Your task to perform on an android device: uninstall "Gboard" Image 0: 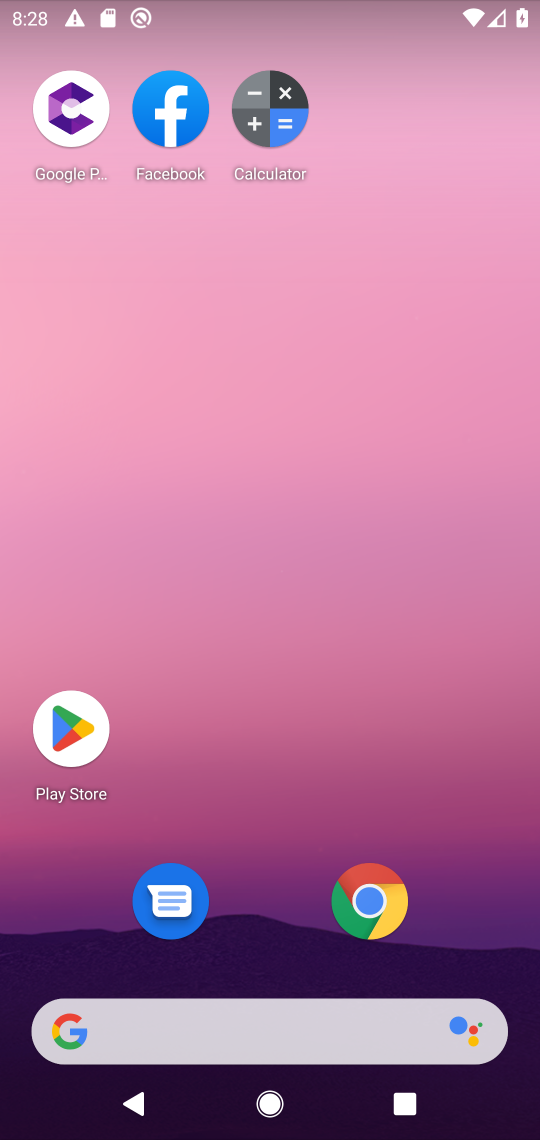
Step 0: click (86, 750)
Your task to perform on an android device: uninstall "Gboard" Image 1: 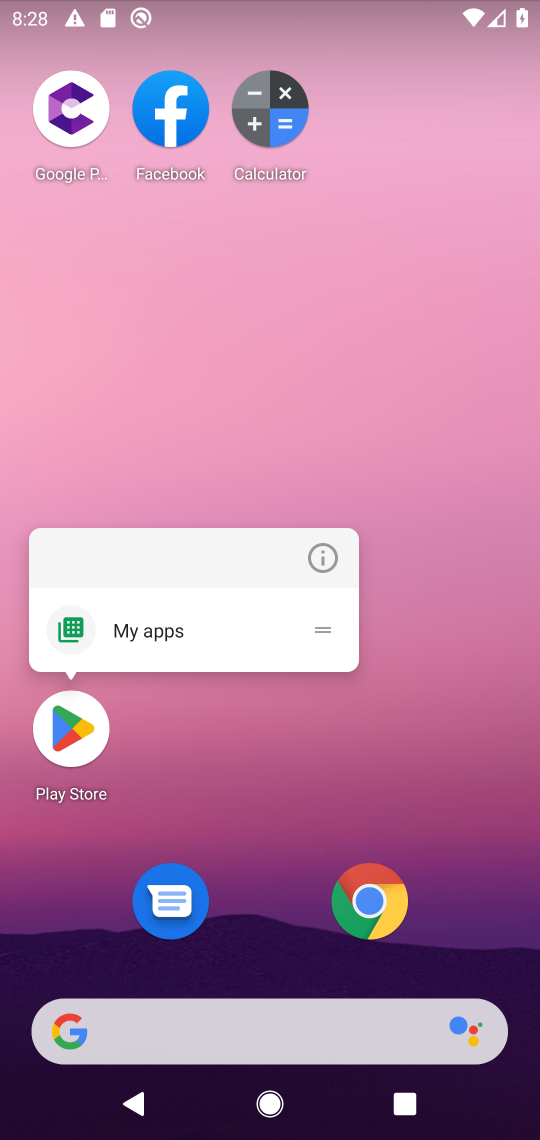
Step 1: click (70, 739)
Your task to perform on an android device: uninstall "Gboard" Image 2: 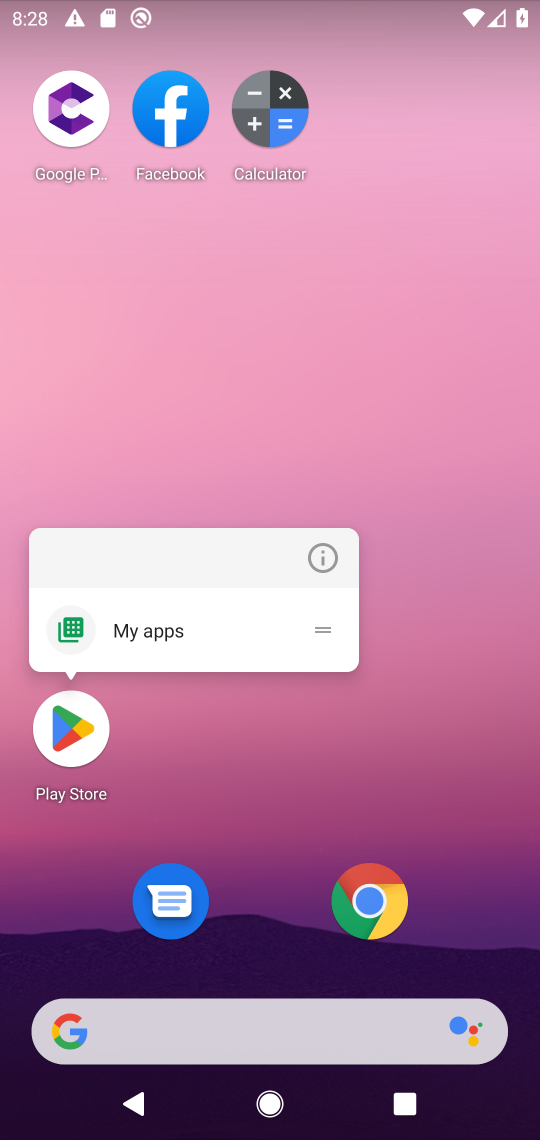
Step 2: click (70, 739)
Your task to perform on an android device: uninstall "Gboard" Image 3: 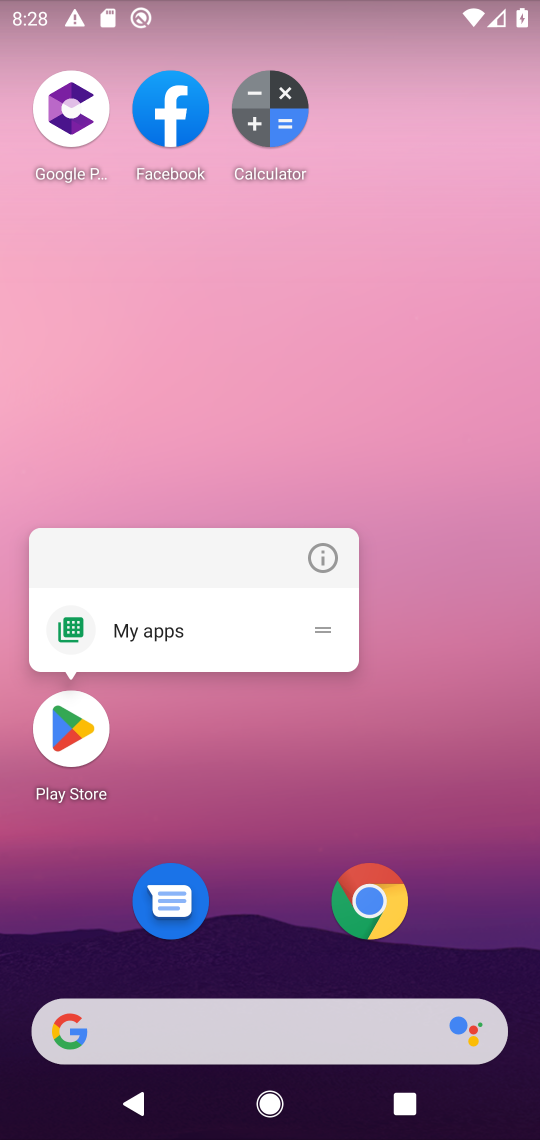
Step 3: click (70, 739)
Your task to perform on an android device: uninstall "Gboard" Image 4: 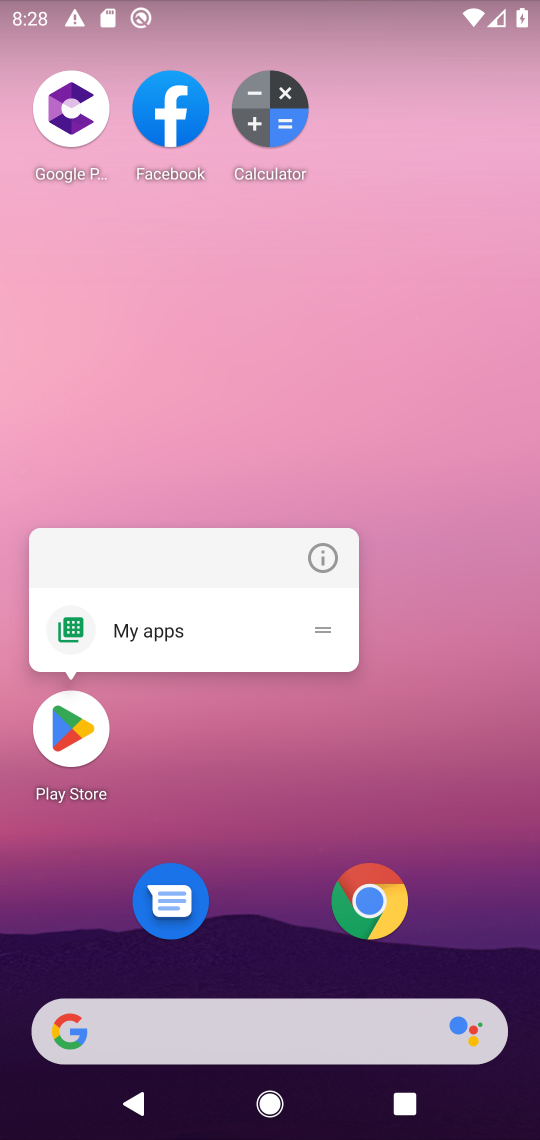
Step 4: click (61, 726)
Your task to perform on an android device: uninstall "Gboard" Image 5: 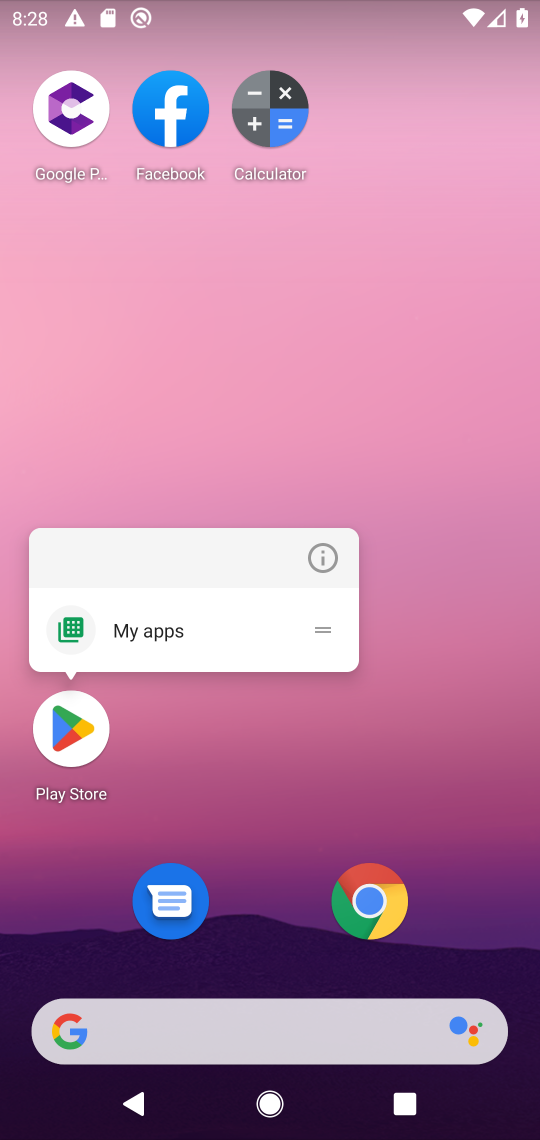
Step 5: click (61, 724)
Your task to perform on an android device: uninstall "Gboard" Image 6: 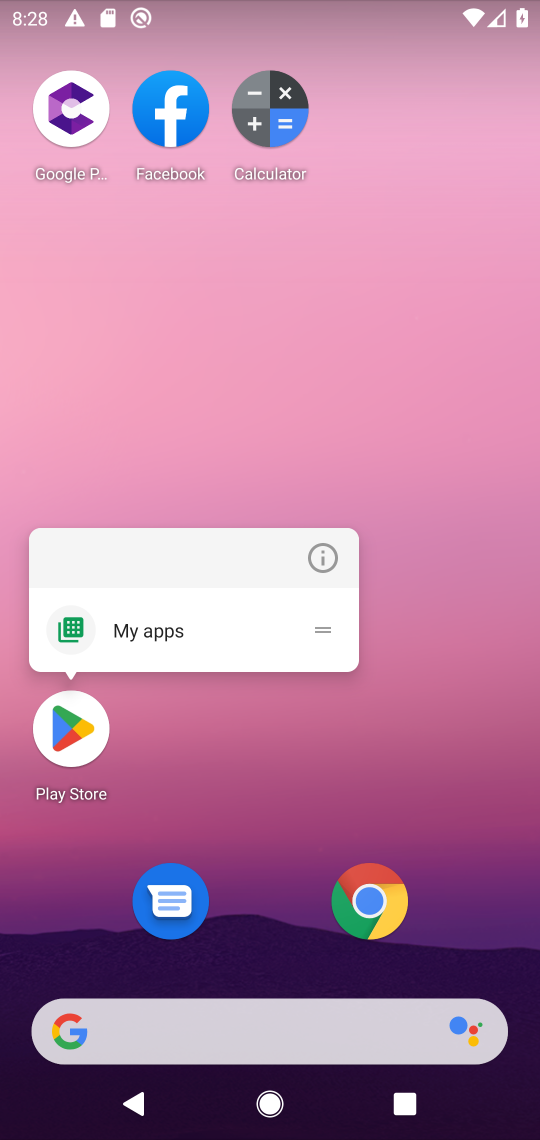
Step 6: click (61, 724)
Your task to perform on an android device: uninstall "Gboard" Image 7: 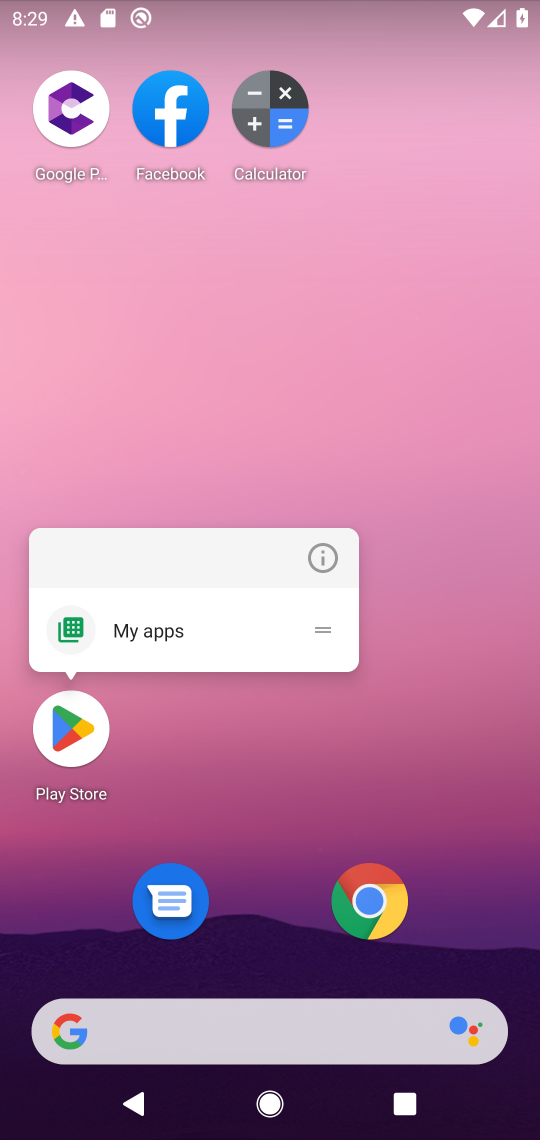
Step 7: click (61, 724)
Your task to perform on an android device: uninstall "Gboard" Image 8: 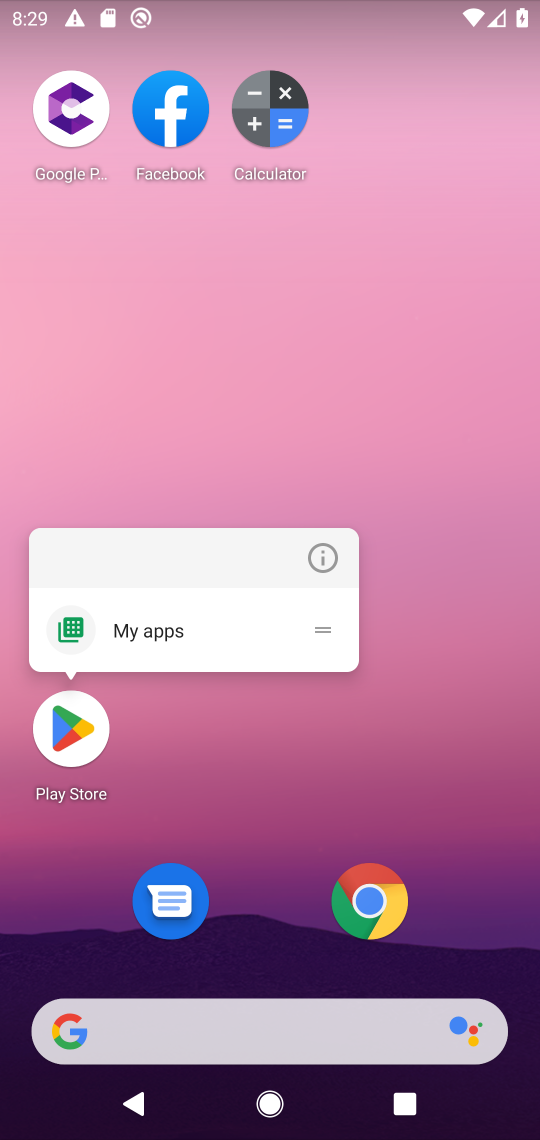
Step 8: click (61, 724)
Your task to perform on an android device: uninstall "Gboard" Image 9: 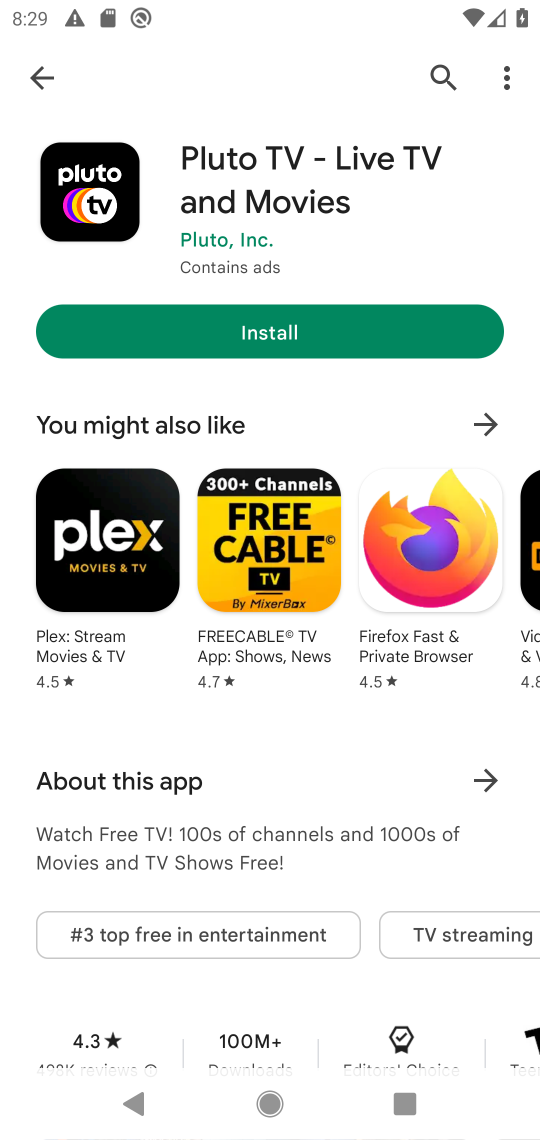
Step 9: click (436, 71)
Your task to perform on an android device: uninstall "Gboard" Image 10: 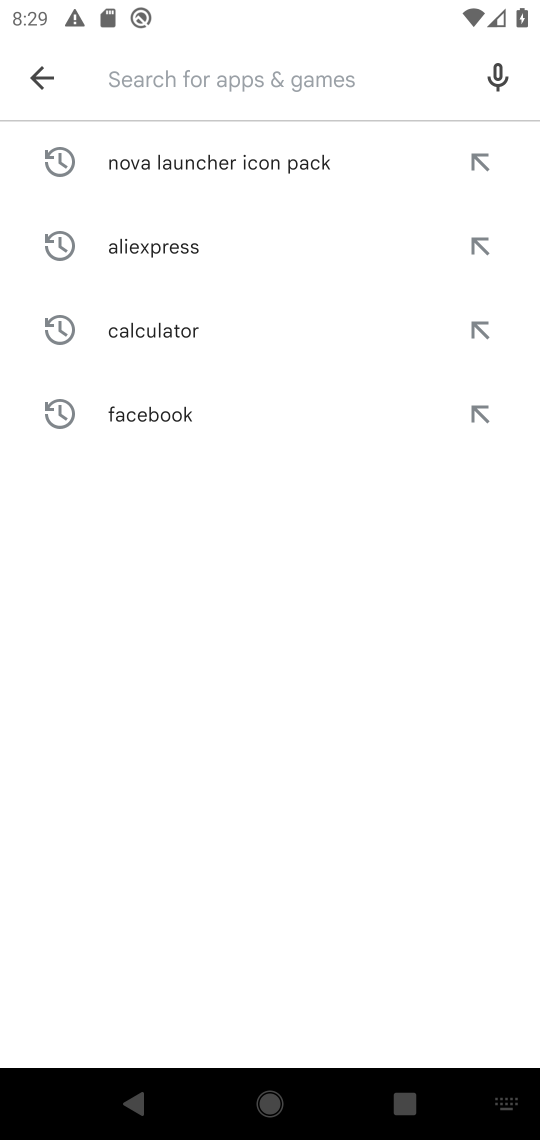
Step 10: type "Gboard"
Your task to perform on an android device: uninstall "Gboard" Image 11: 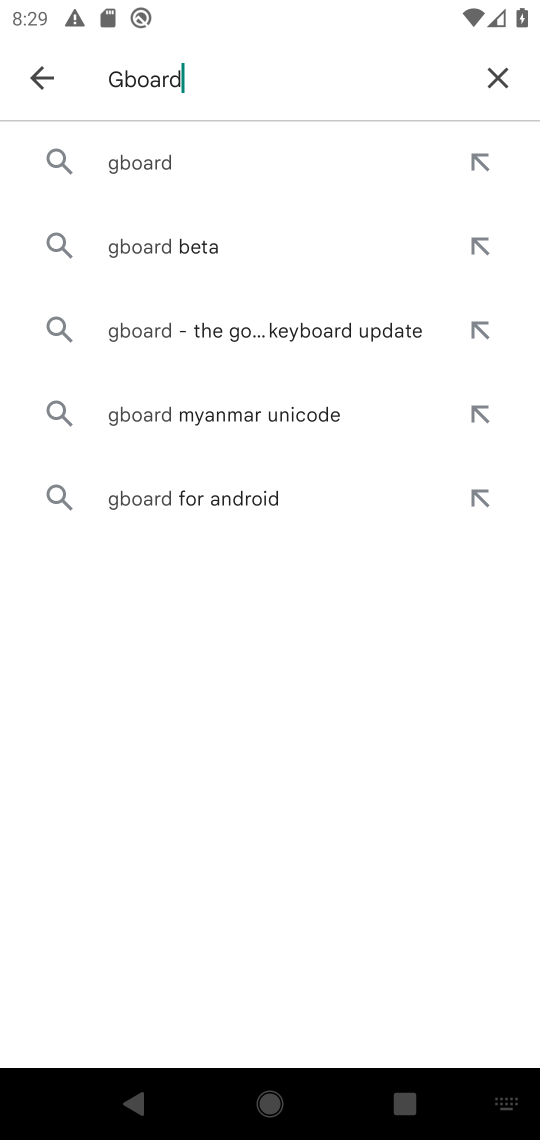
Step 11: click (135, 157)
Your task to perform on an android device: uninstall "Gboard" Image 12: 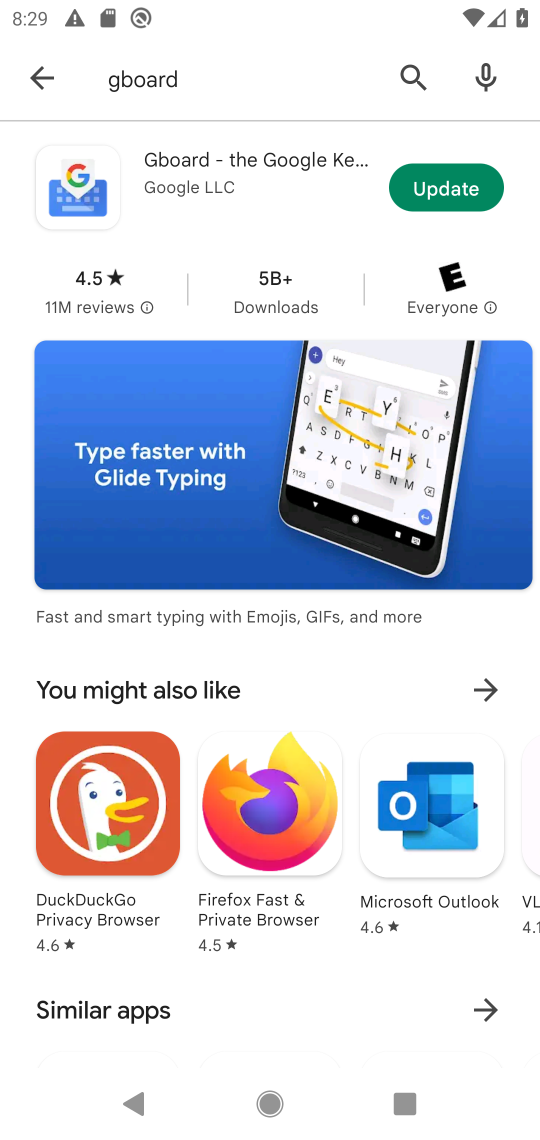
Step 12: click (465, 191)
Your task to perform on an android device: uninstall "Gboard" Image 13: 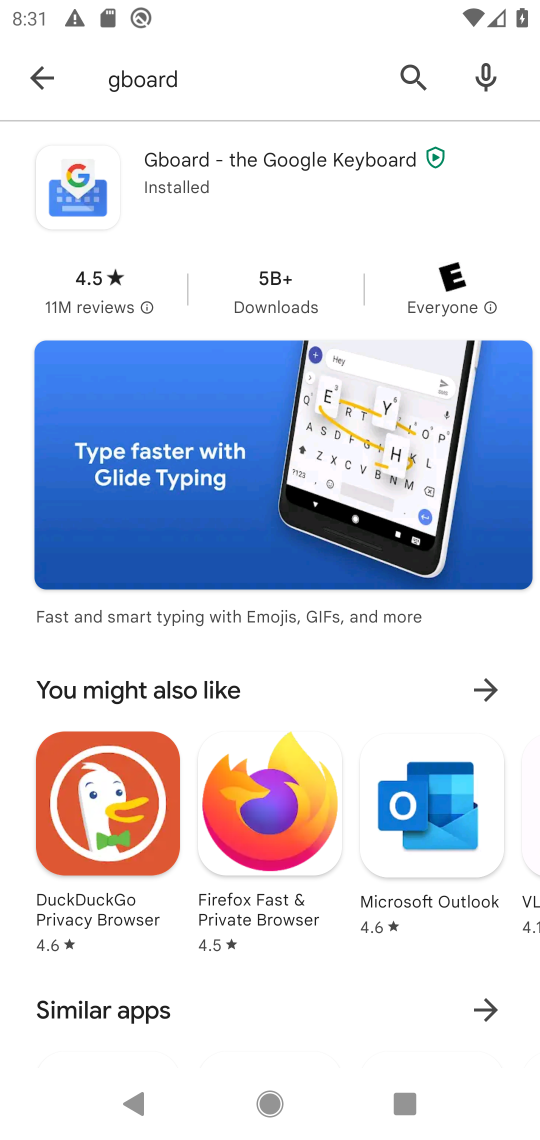
Step 13: click (47, 73)
Your task to perform on an android device: uninstall "Gboard" Image 14: 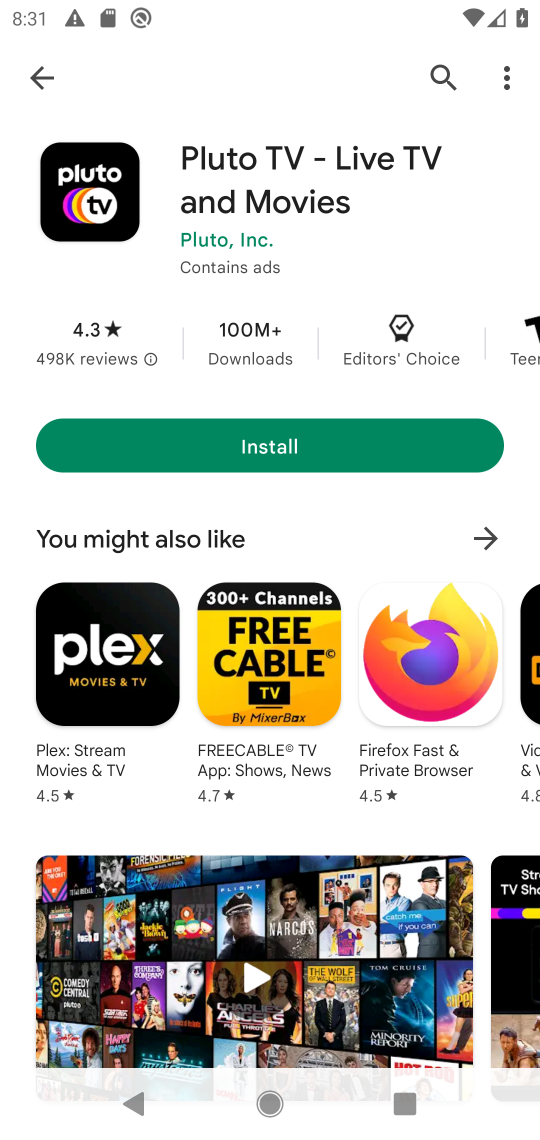
Step 14: task complete